Your task to perform on an android device: open the mobile data screen to see how much data has been used Image 0: 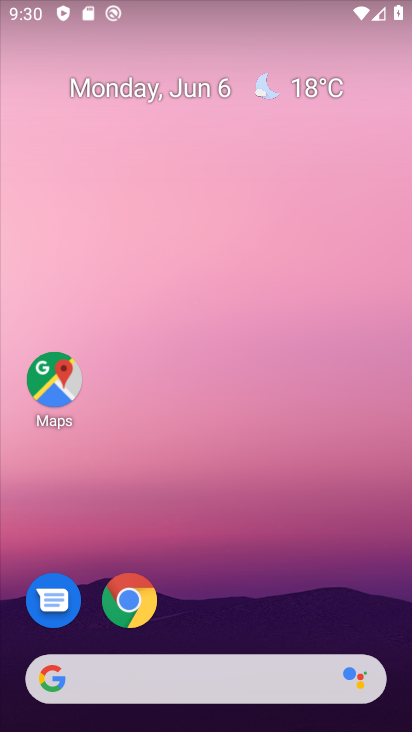
Step 0: drag from (267, 549) to (190, 25)
Your task to perform on an android device: open the mobile data screen to see how much data has been used Image 1: 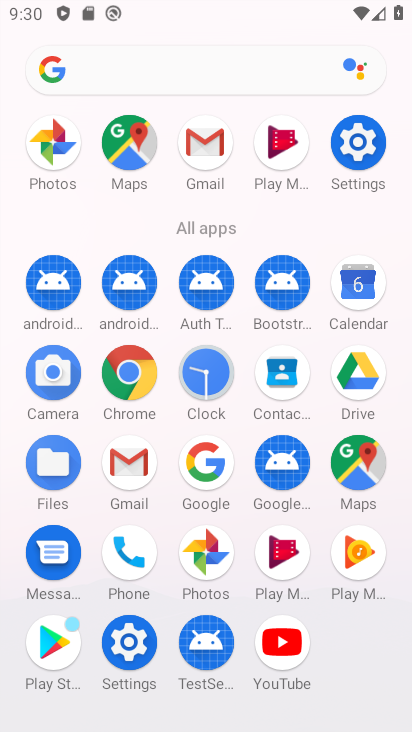
Step 1: click (0, 280)
Your task to perform on an android device: open the mobile data screen to see how much data has been used Image 2: 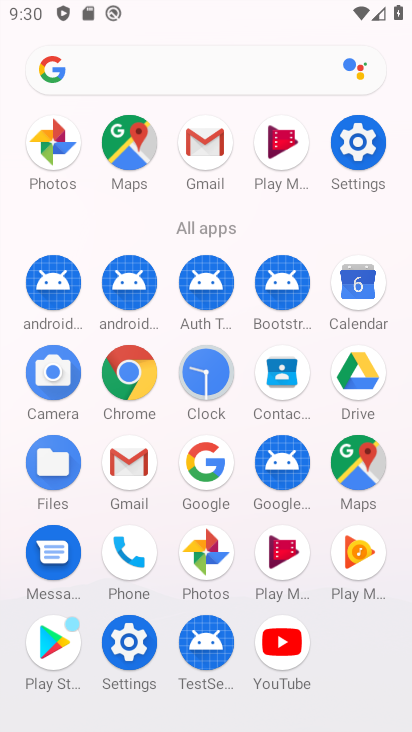
Step 2: click (126, 639)
Your task to perform on an android device: open the mobile data screen to see how much data has been used Image 3: 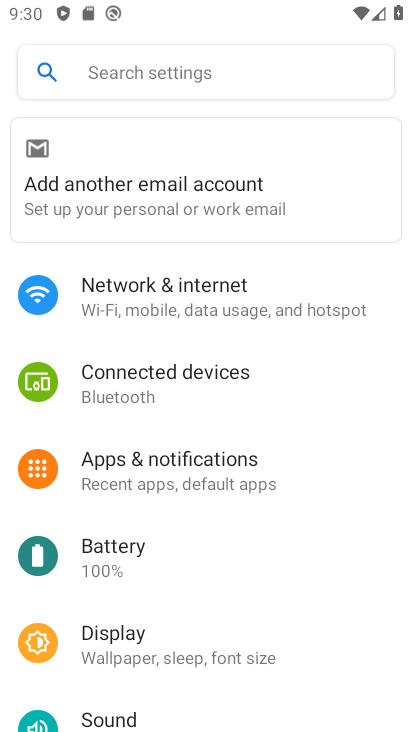
Step 3: click (211, 296)
Your task to perform on an android device: open the mobile data screen to see how much data has been used Image 4: 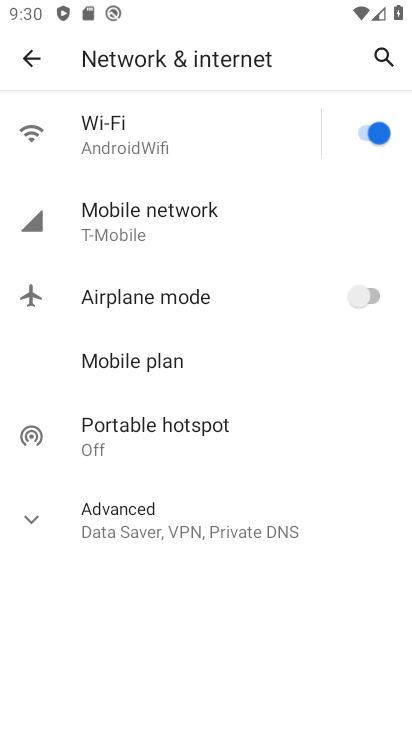
Step 4: click (205, 195)
Your task to perform on an android device: open the mobile data screen to see how much data has been used Image 5: 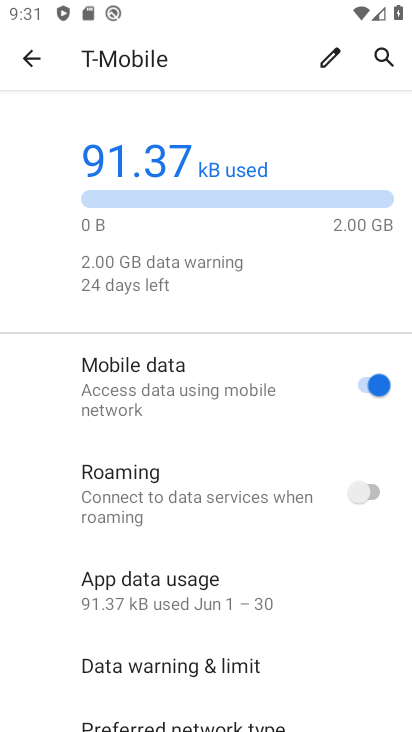
Step 5: task complete